Your task to perform on an android device: Open Youtube and go to the subscriptions tab Image 0: 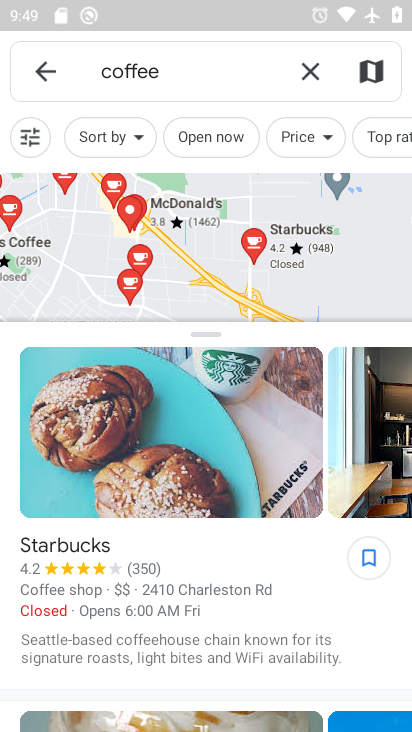
Step 0: press home button
Your task to perform on an android device: Open Youtube and go to the subscriptions tab Image 1: 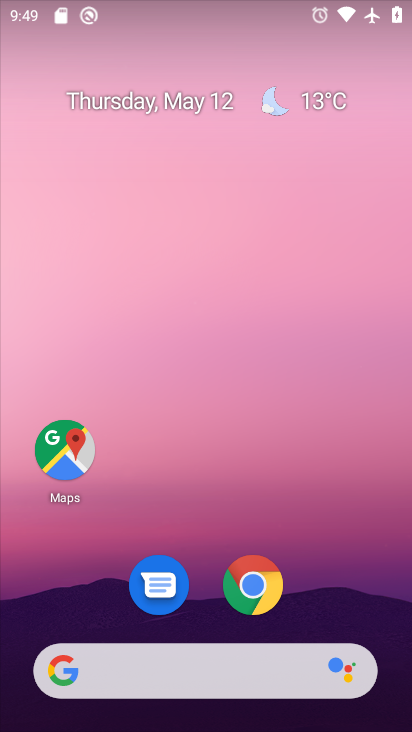
Step 1: drag from (298, 513) to (289, 27)
Your task to perform on an android device: Open Youtube and go to the subscriptions tab Image 2: 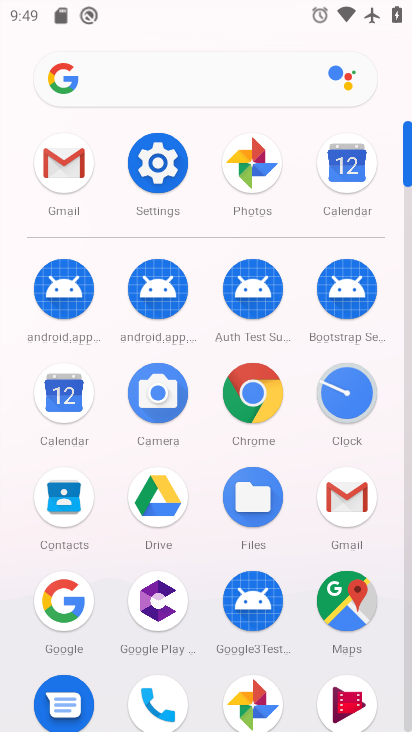
Step 2: drag from (292, 597) to (295, 367)
Your task to perform on an android device: Open Youtube and go to the subscriptions tab Image 3: 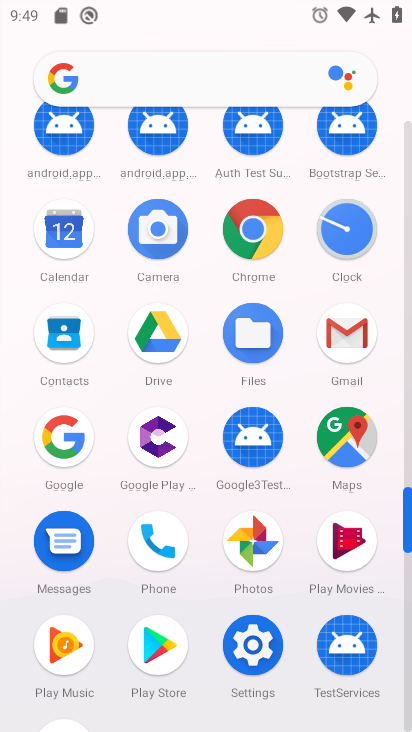
Step 3: drag from (203, 568) to (199, 217)
Your task to perform on an android device: Open Youtube and go to the subscriptions tab Image 4: 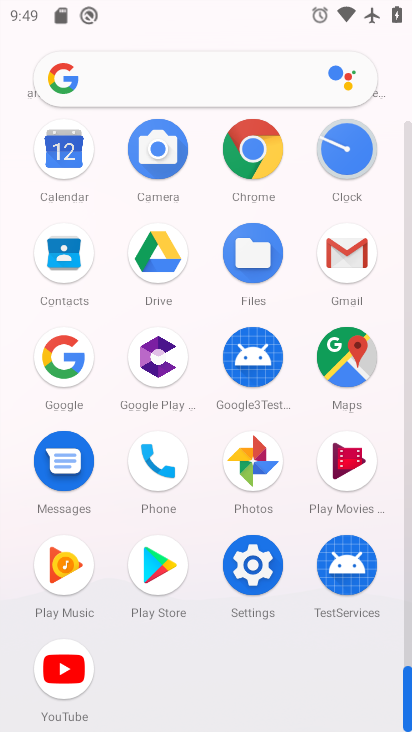
Step 4: click (71, 656)
Your task to perform on an android device: Open Youtube and go to the subscriptions tab Image 5: 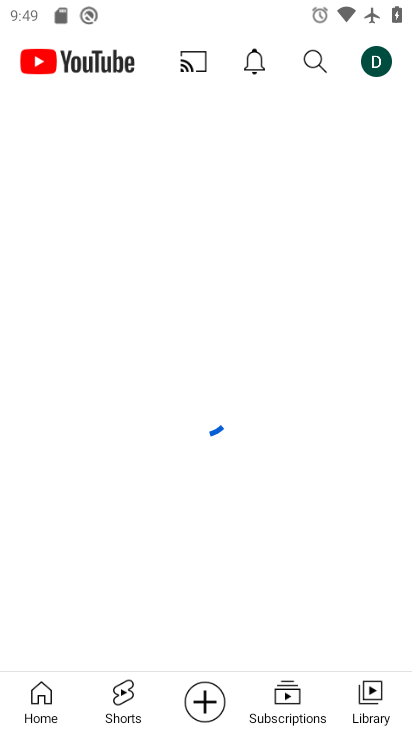
Step 5: click (281, 700)
Your task to perform on an android device: Open Youtube and go to the subscriptions tab Image 6: 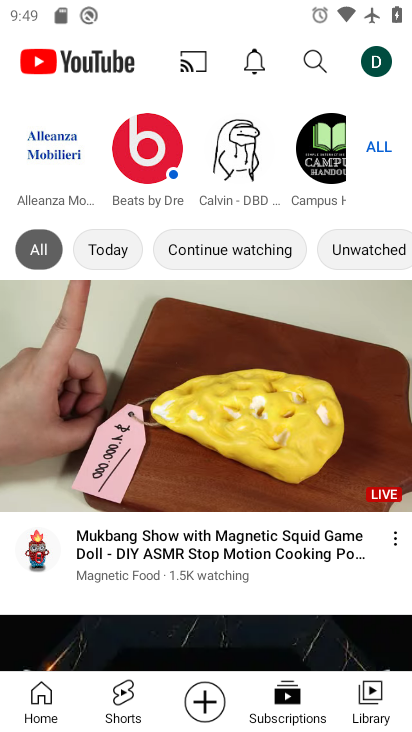
Step 6: task complete